Your task to perform on an android device: Open Wikipedia Image 0: 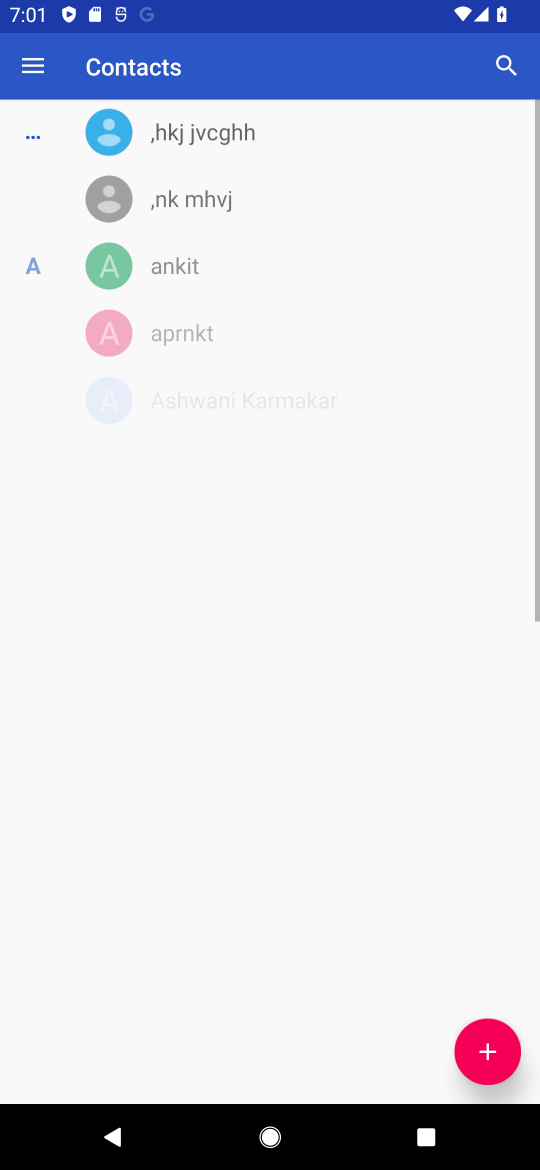
Step 0: press home button
Your task to perform on an android device: Open Wikipedia Image 1: 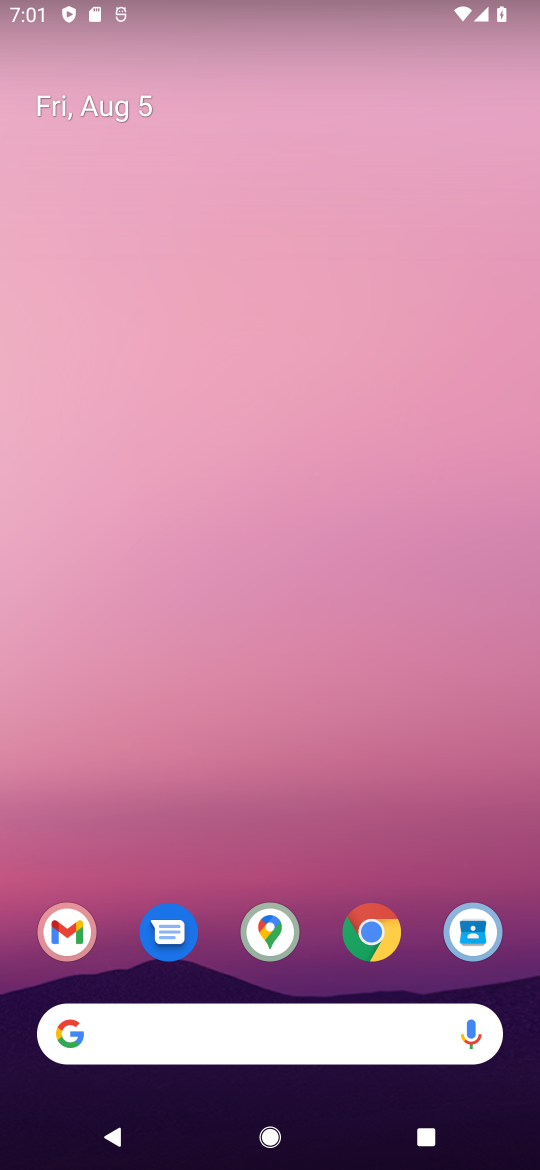
Step 1: drag from (346, 826) to (278, 197)
Your task to perform on an android device: Open Wikipedia Image 2: 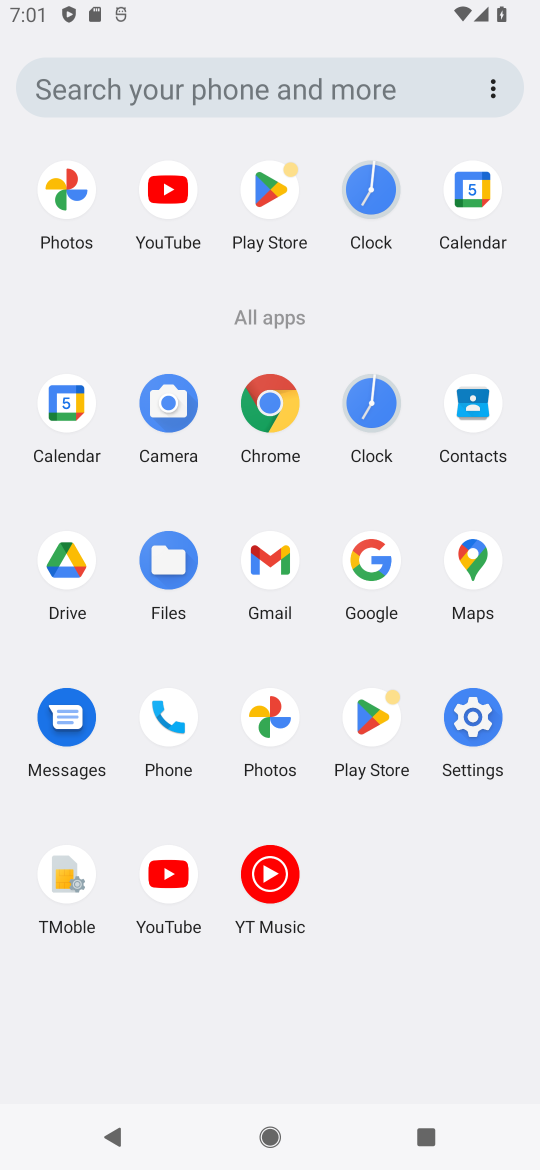
Step 2: click (267, 398)
Your task to perform on an android device: Open Wikipedia Image 3: 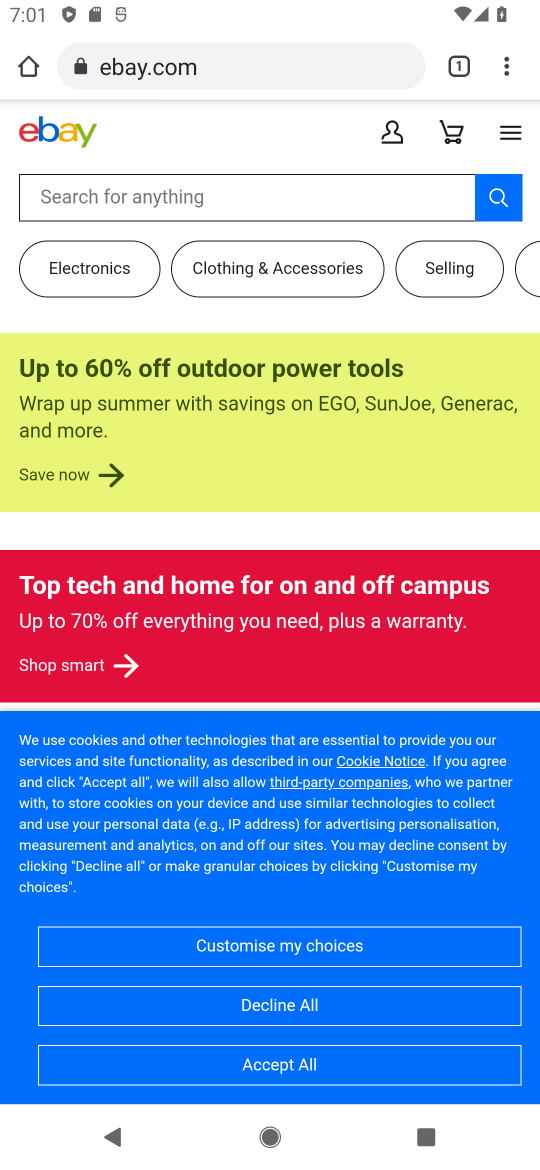
Step 3: click (271, 72)
Your task to perform on an android device: Open Wikipedia Image 4: 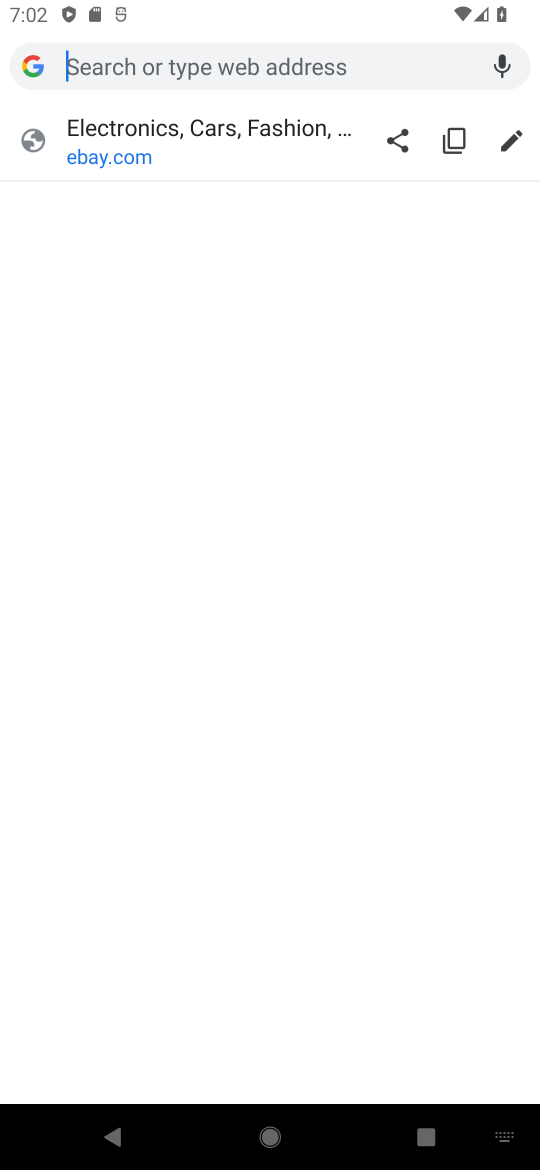
Step 4: type "wikipedia"
Your task to perform on an android device: Open Wikipedia Image 5: 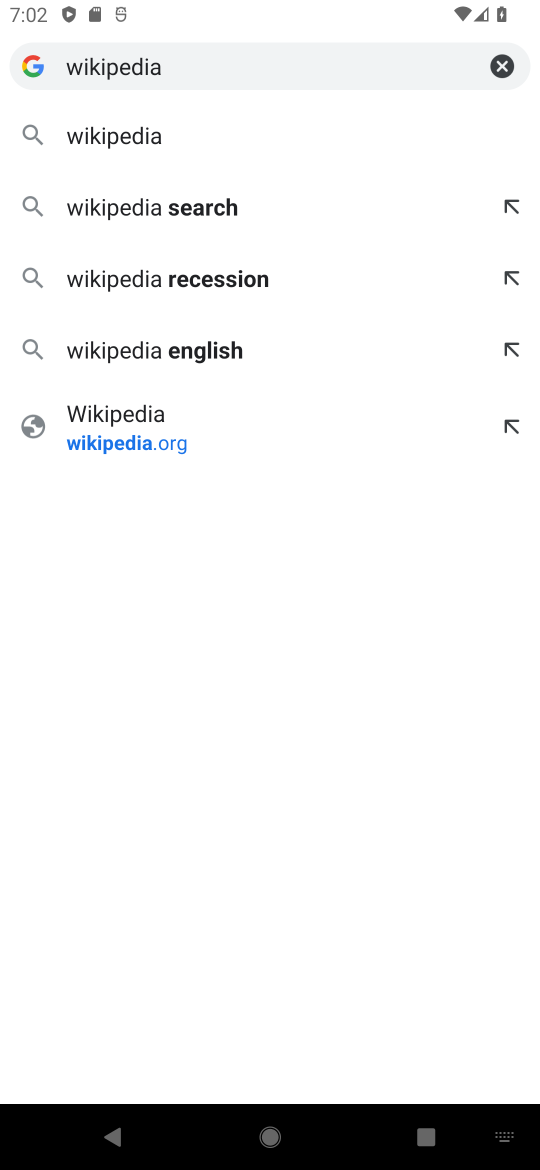
Step 5: click (124, 137)
Your task to perform on an android device: Open Wikipedia Image 6: 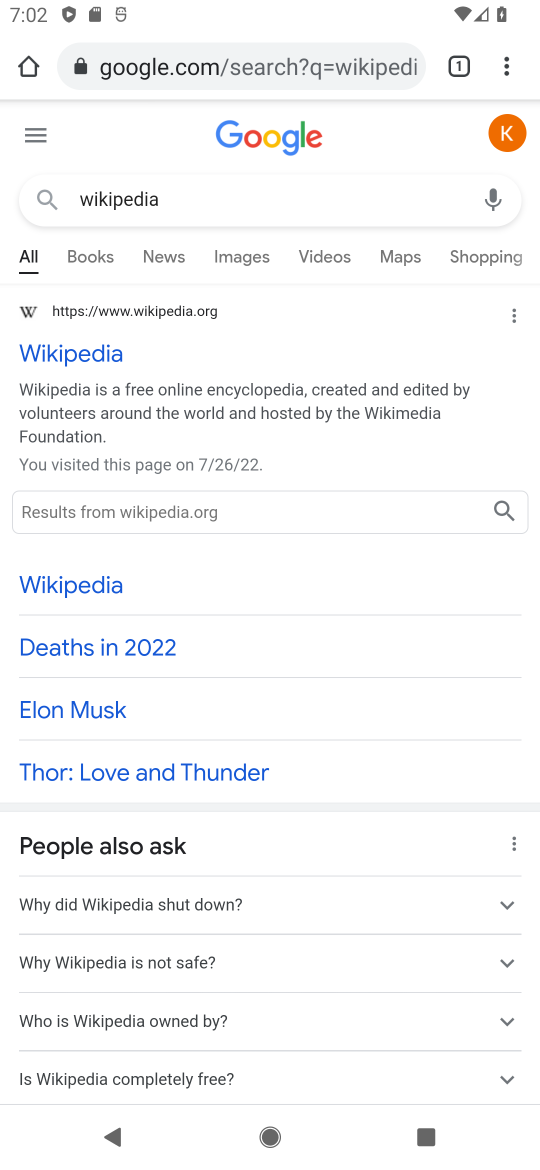
Step 6: drag from (313, 837) to (283, 331)
Your task to perform on an android device: Open Wikipedia Image 7: 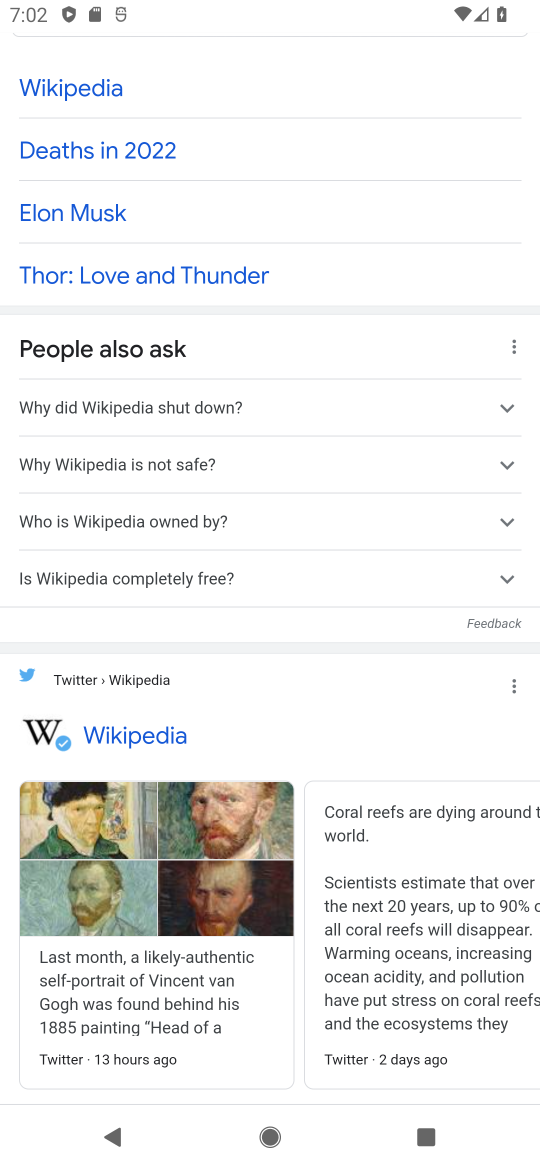
Step 7: drag from (309, 182) to (279, 1129)
Your task to perform on an android device: Open Wikipedia Image 8: 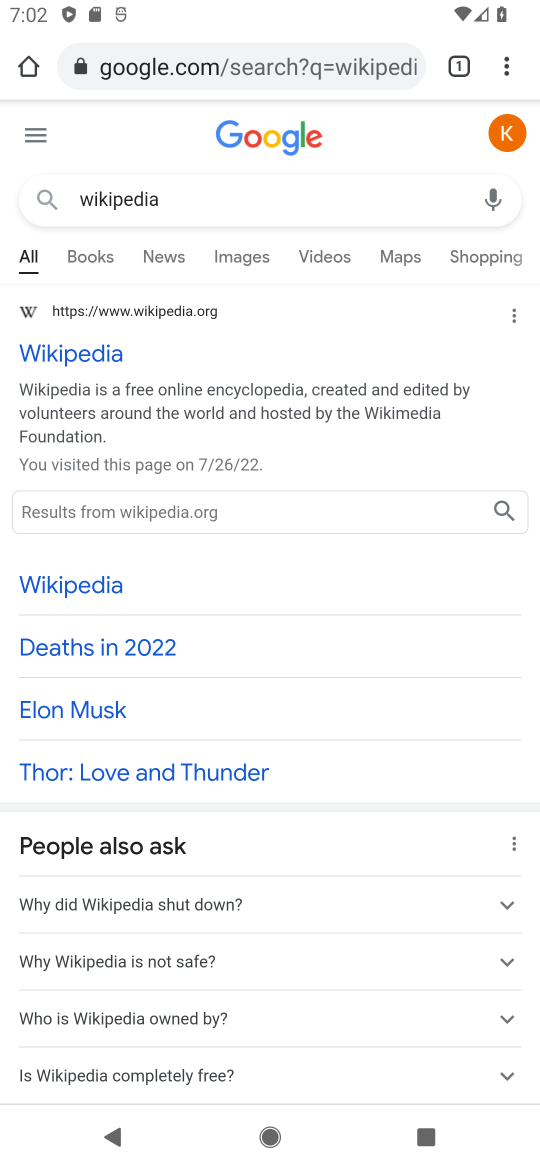
Step 8: click (68, 362)
Your task to perform on an android device: Open Wikipedia Image 9: 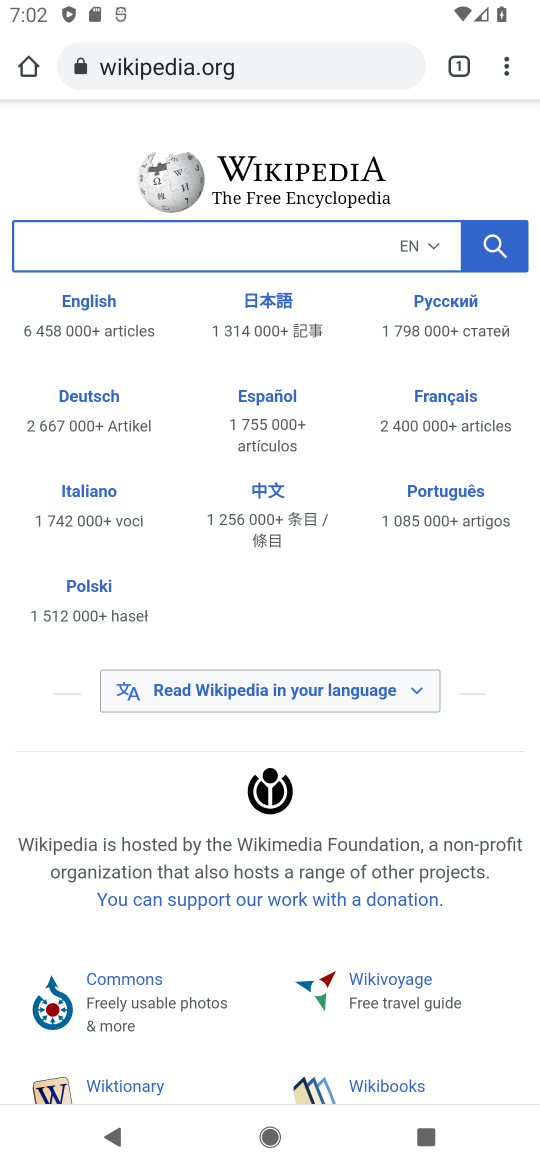
Step 9: task complete